Your task to perform on an android device: set an alarm Image 0: 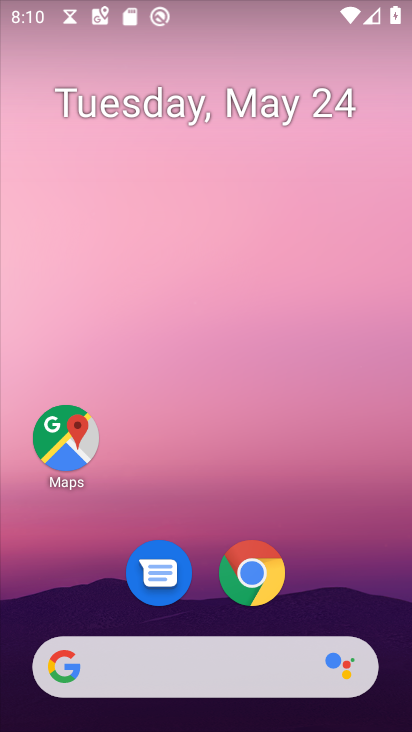
Step 0: drag from (352, 556) to (319, 50)
Your task to perform on an android device: set an alarm Image 1: 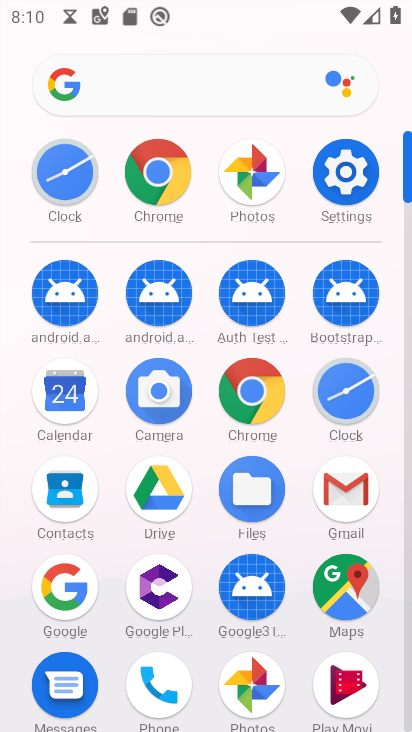
Step 1: click (367, 384)
Your task to perform on an android device: set an alarm Image 2: 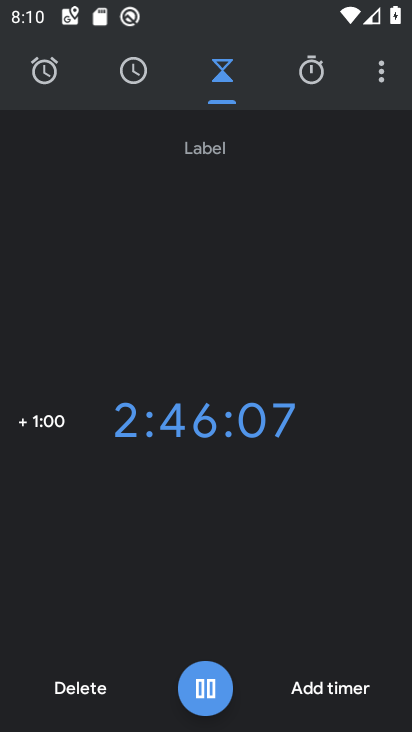
Step 2: click (59, 76)
Your task to perform on an android device: set an alarm Image 3: 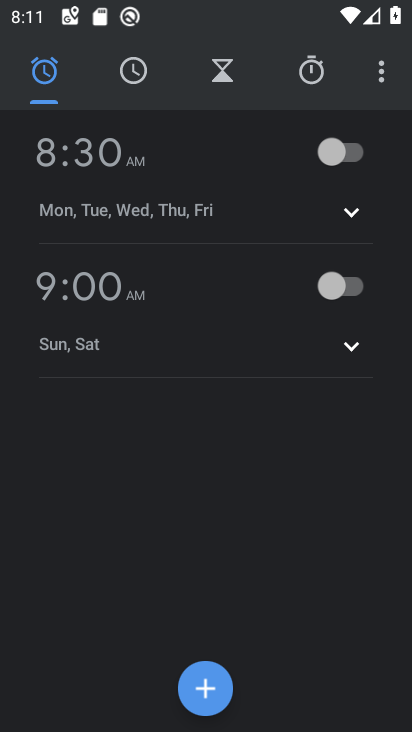
Step 3: click (364, 143)
Your task to perform on an android device: set an alarm Image 4: 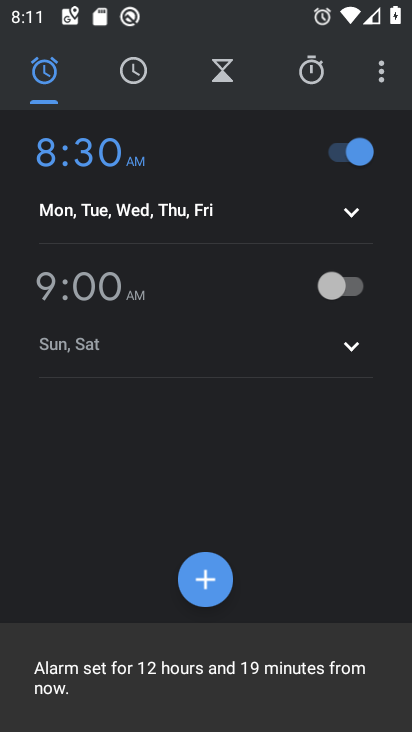
Step 4: task complete